Your task to perform on an android device: Search for a new foundation on Sephora Image 0: 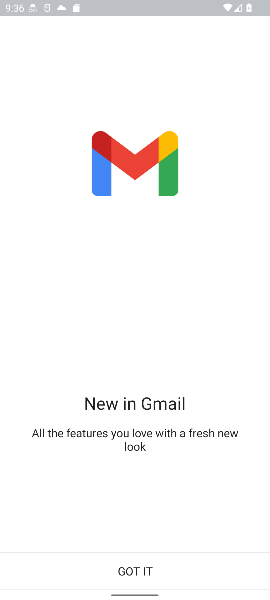
Step 0: press home button
Your task to perform on an android device: Search for a new foundation on Sephora Image 1: 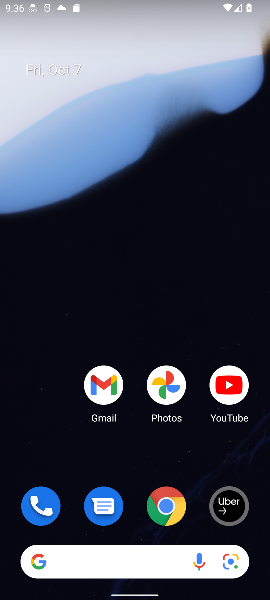
Step 1: click (166, 504)
Your task to perform on an android device: Search for a new foundation on Sephora Image 2: 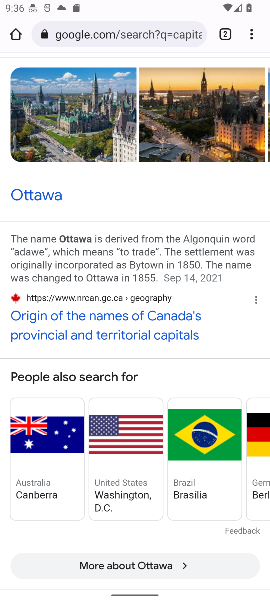
Step 2: click (124, 32)
Your task to perform on an android device: Search for a new foundation on Sephora Image 3: 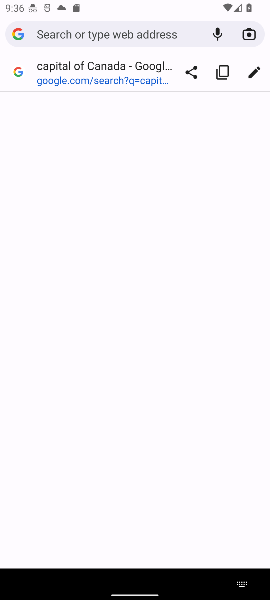
Step 3: type "new foundation on Sephora"
Your task to perform on an android device: Search for a new foundation on Sephora Image 4: 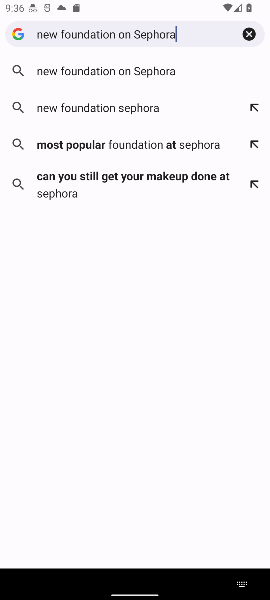
Step 4: click (102, 69)
Your task to perform on an android device: Search for a new foundation on Sephora Image 5: 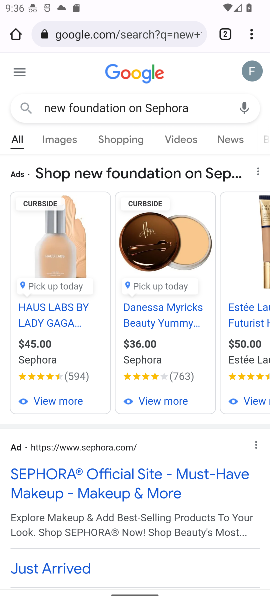
Step 5: drag from (148, 464) to (236, 238)
Your task to perform on an android device: Search for a new foundation on Sephora Image 6: 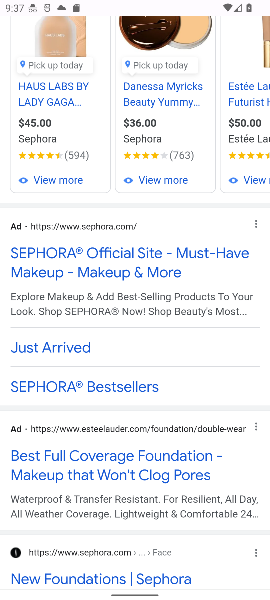
Step 6: click (125, 246)
Your task to perform on an android device: Search for a new foundation on Sephora Image 7: 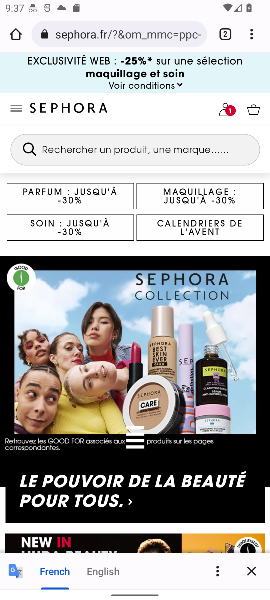
Step 7: click (106, 571)
Your task to perform on an android device: Search for a new foundation on Sephora Image 8: 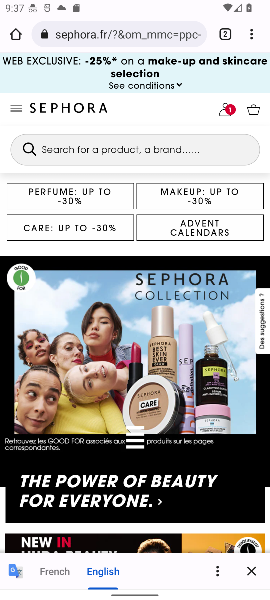
Step 8: click (82, 145)
Your task to perform on an android device: Search for a new foundation on Sephora Image 9: 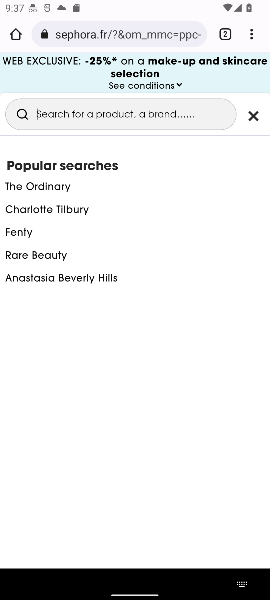
Step 9: type "new foundation"
Your task to perform on an android device: Search for a new foundation on Sephora Image 10: 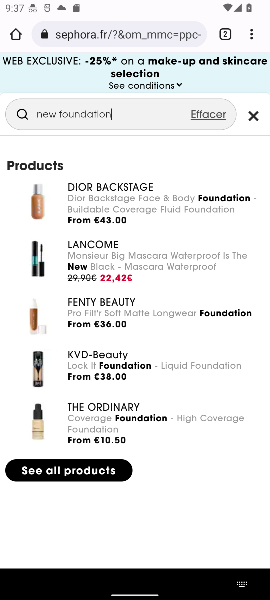
Step 10: task complete